Your task to perform on an android device: make emails show in primary in the gmail app Image 0: 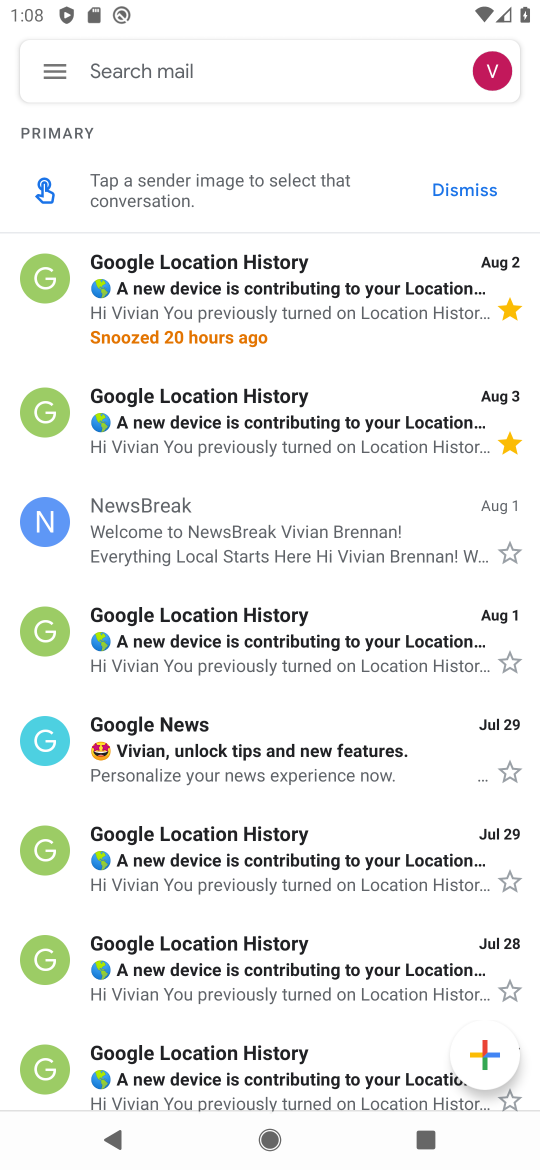
Step 0: click (58, 77)
Your task to perform on an android device: make emails show in primary in the gmail app Image 1: 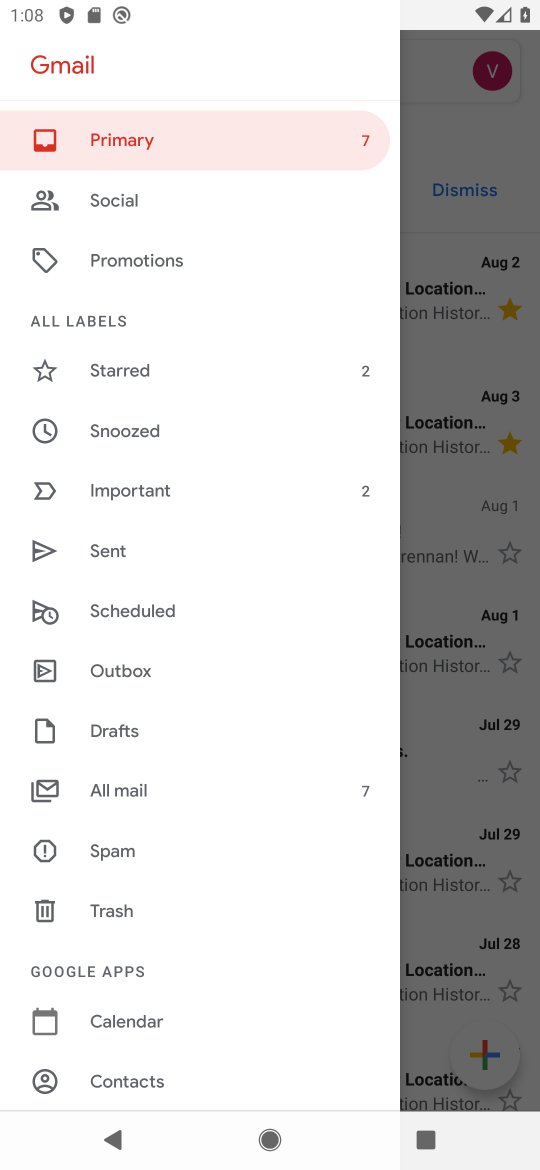
Step 1: click (141, 170)
Your task to perform on an android device: make emails show in primary in the gmail app Image 2: 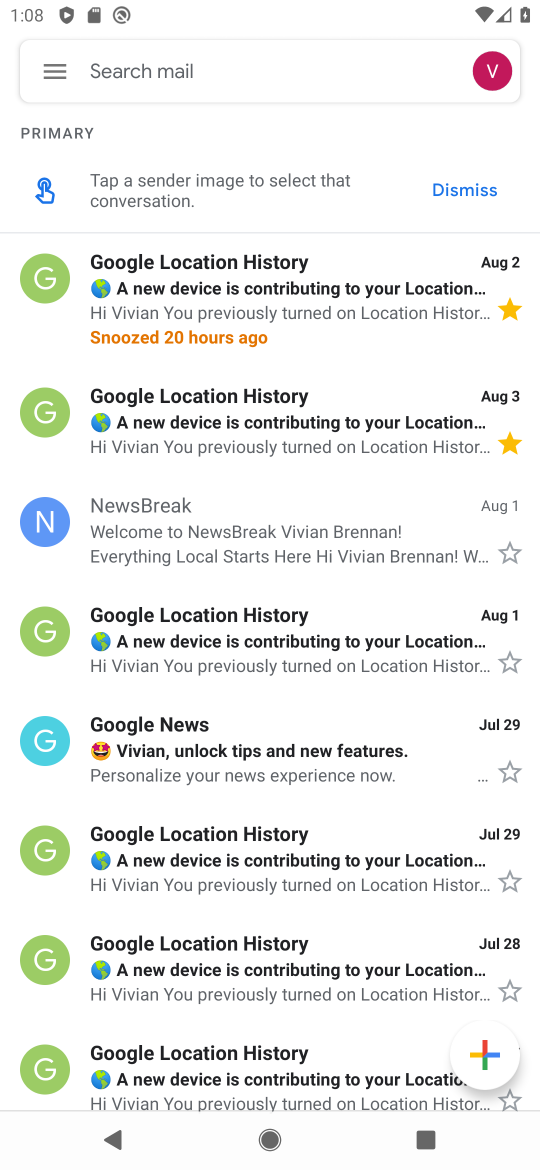
Step 2: click (237, 543)
Your task to perform on an android device: make emails show in primary in the gmail app Image 3: 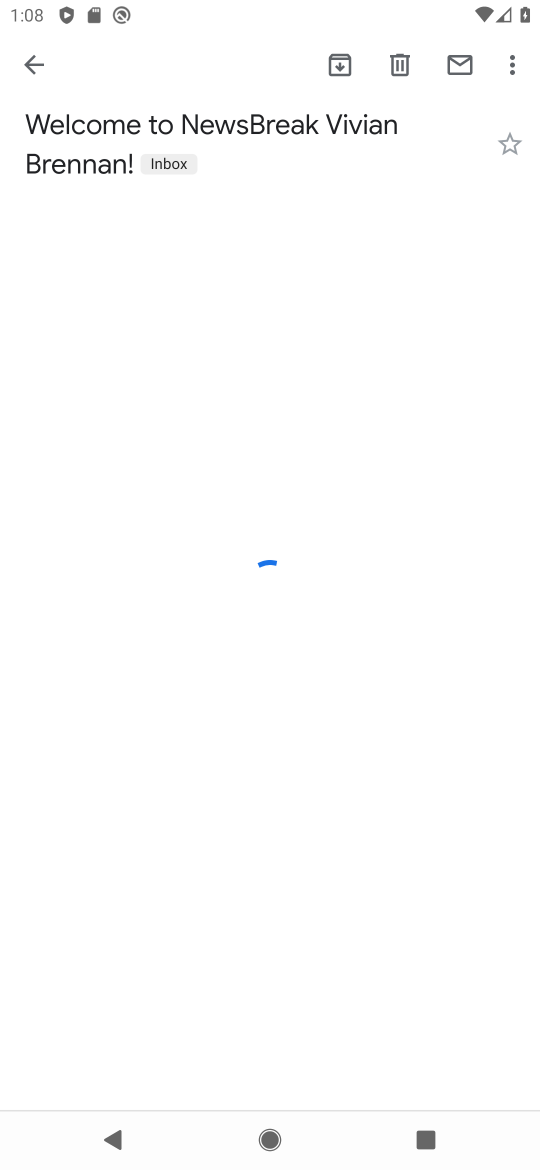
Step 3: click (509, 69)
Your task to perform on an android device: make emails show in primary in the gmail app Image 4: 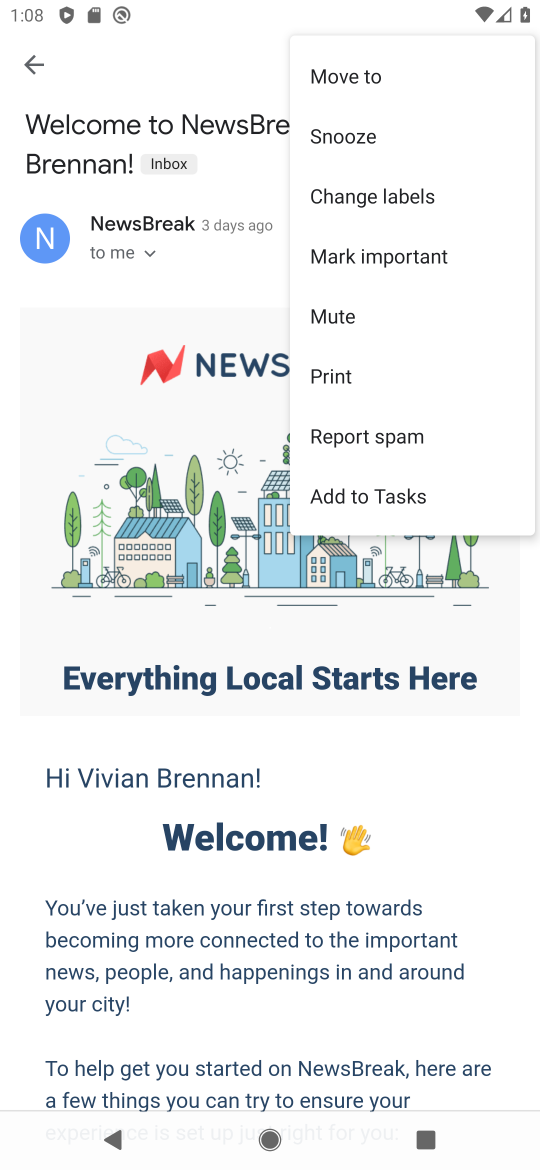
Step 4: click (384, 202)
Your task to perform on an android device: make emails show in primary in the gmail app Image 5: 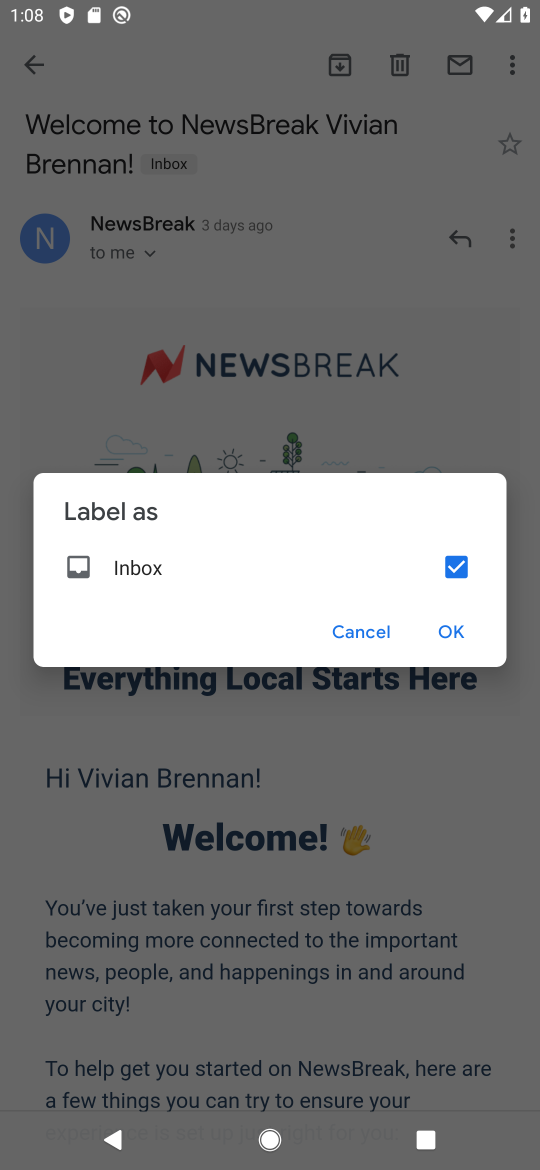
Step 5: click (359, 628)
Your task to perform on an android device: make emails show in primary in the gmail app Image 6: 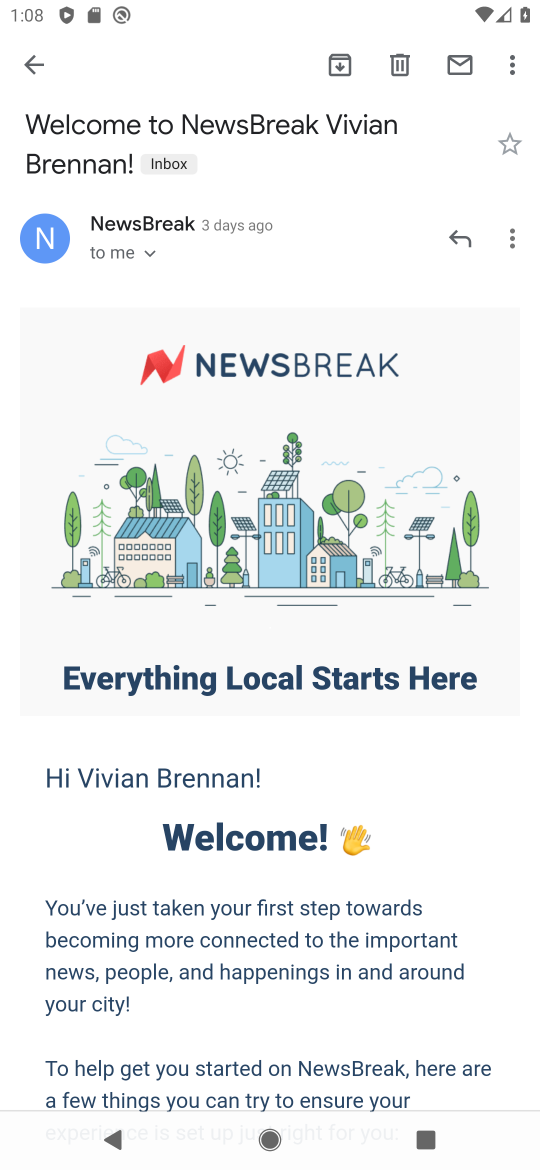
Step 6: task complete